Your task to perform on an android device: find which apps use the phone's location Image 0: 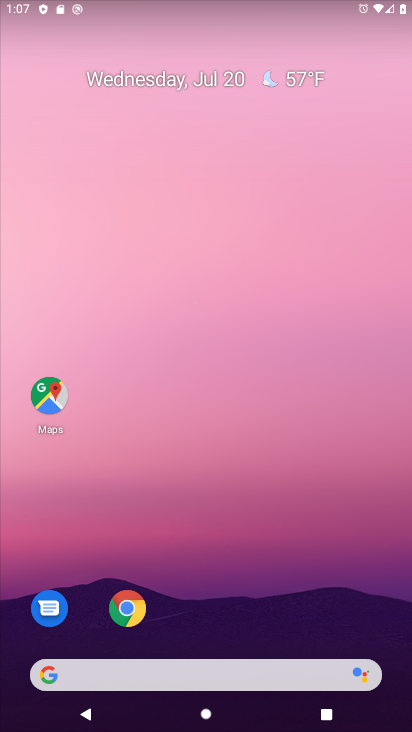
Step 0: drag from (174, 575) to (305, 164)
Your task to perform on an android device: find which apps use the phone's location Image 1: 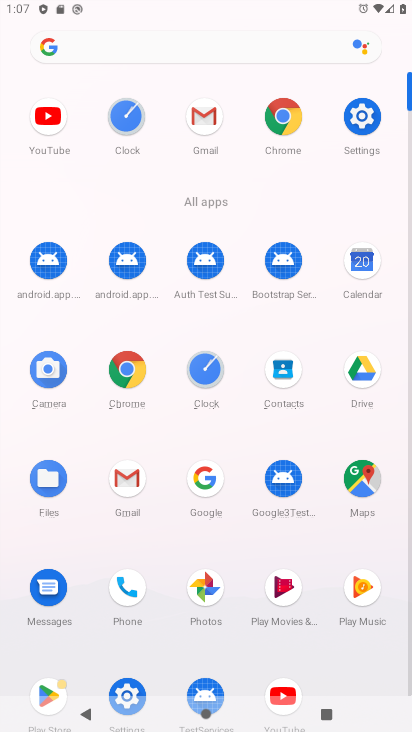
Step 1: click (360, 122)
Your task to perform on an android device: find which apps use the phone's location Image 2: 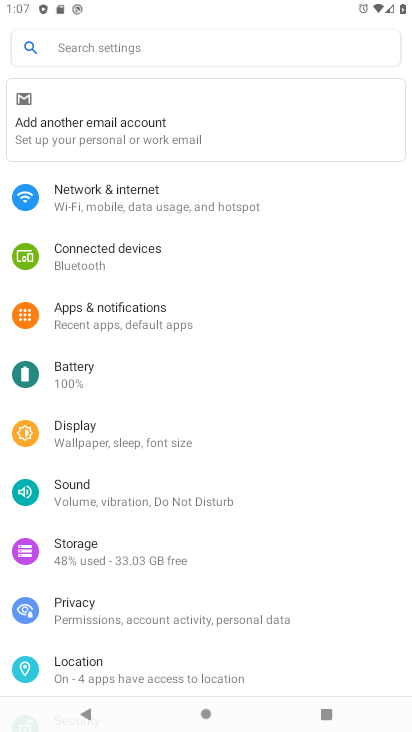
Step 2: click (118, 661)
Your task to perform on an android device: find which apps use the phone's location Image 3: 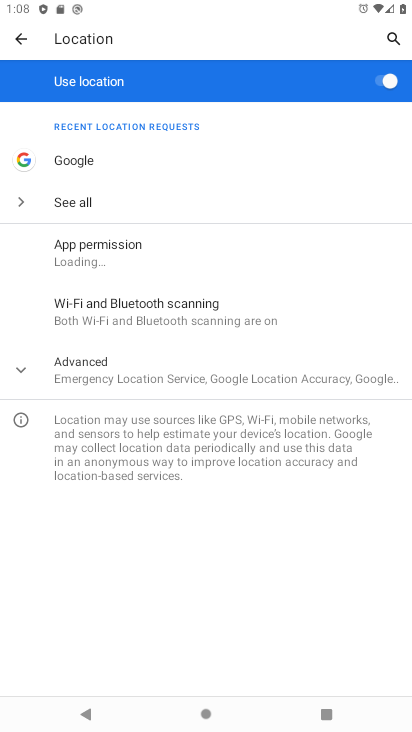
Step 3: click (194, 256)
Your task to perform on an android device: find which apps use the phone's location Image 4: 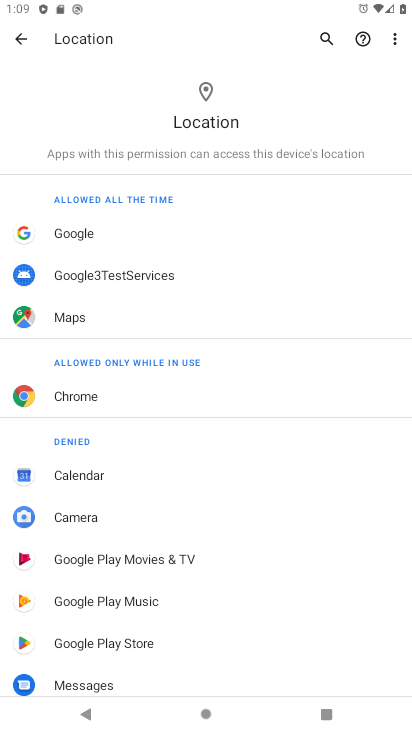
Step 4: click (93, 196)
Your task to perform on an android device: find which apps use the phone's location Image 5: 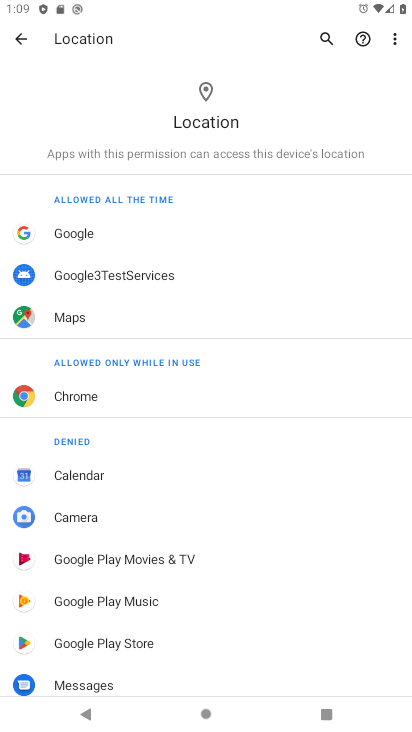
Step 5: task complete